Your task to perform on an android device: toggle sleep mode Image 0: 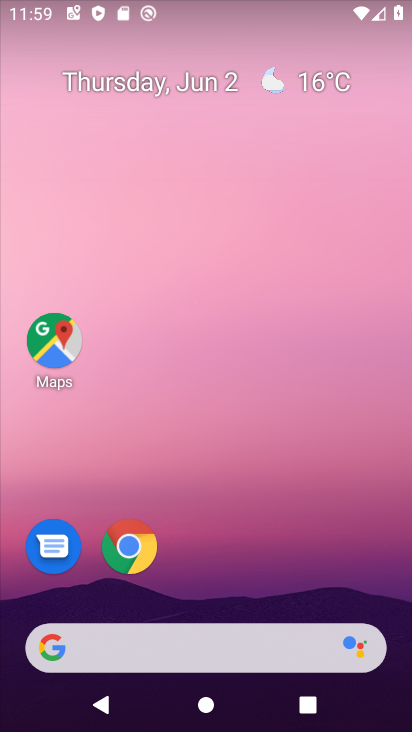
Step 0: drag from (211, 492) to (167, 11)
Your task to perform on an android device: toggle sleep mode Image 1: 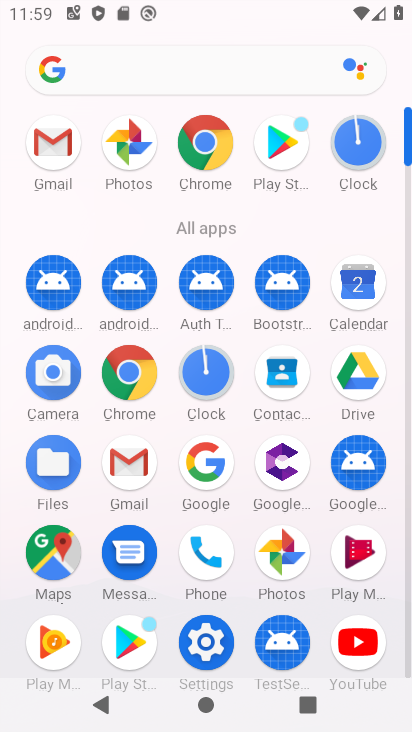
Step 1: click (207, 646)
Your task to perform on an android device: toggle sleep mode Image 2: 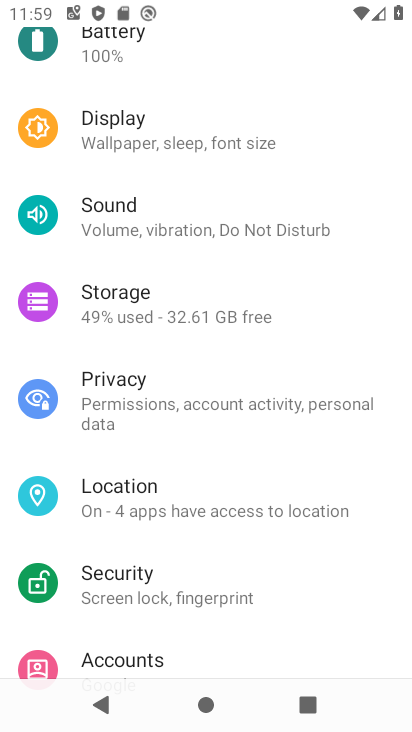
Step 2: click (106, 131)
Your task to perform on an android device: toggle sleep mode Image 3: 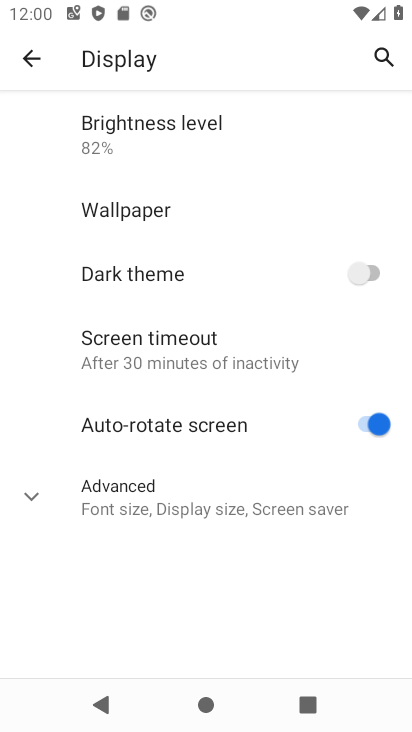
Step 3: task complete